Your task to perform on an android device: turn off javascript in the chrome app Image 0: 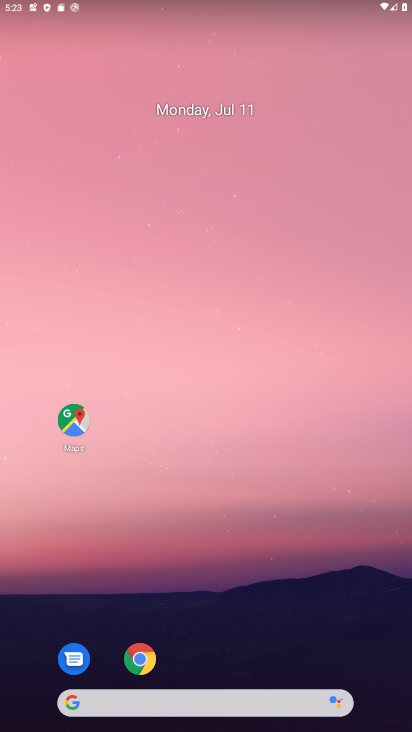
Step 0: click (136, 657)
Your task to perform on an android device: turn off javascript in the chrome app Image 1: 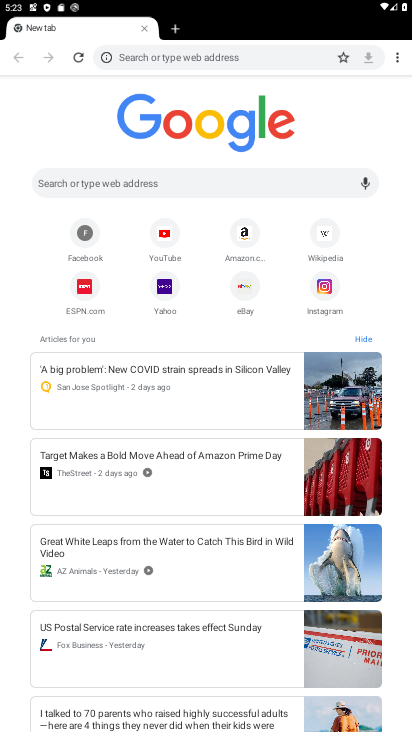
Step 1: click (398, 60)
Your task to perform on an android device: turn off javascript in the chrome app Image 2: 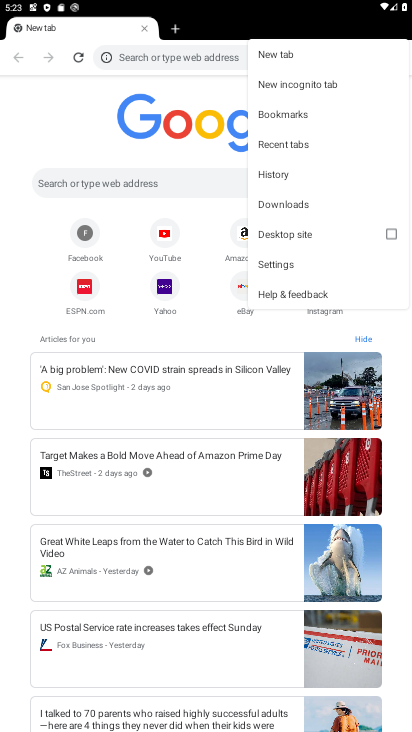
Step 2: click (274, 259)
Your task to perform on an android device: turn off javascript in the chrome app Image 3: 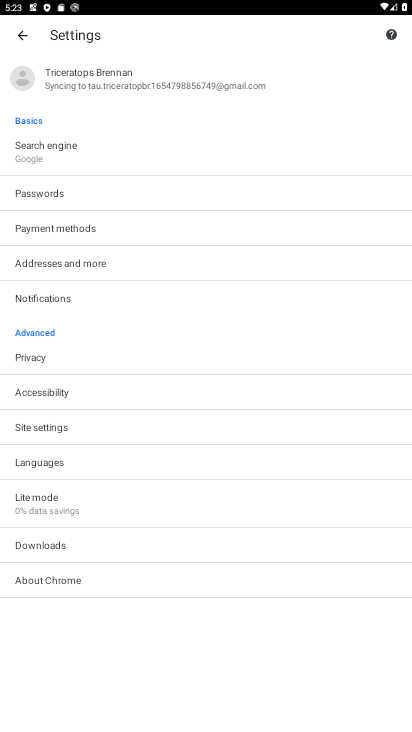
Step 3: click (38, 431)
Your task to perform on an android device: turn off javascript in the chrome app Image 4: 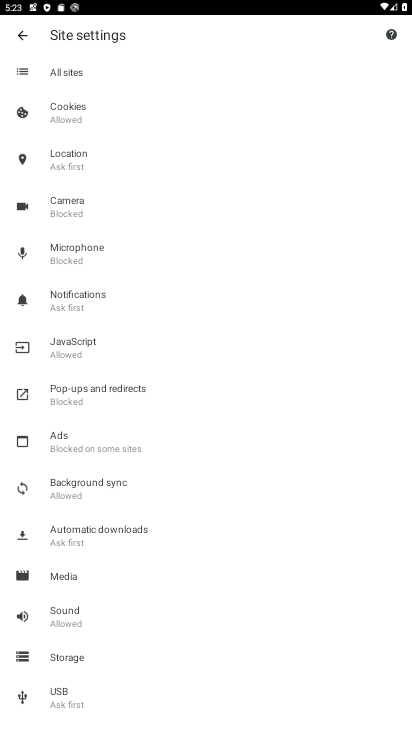
Step 4: click (63, 341)
Your task to perform on an android device: turn off javascript in the chrome app Image 5: 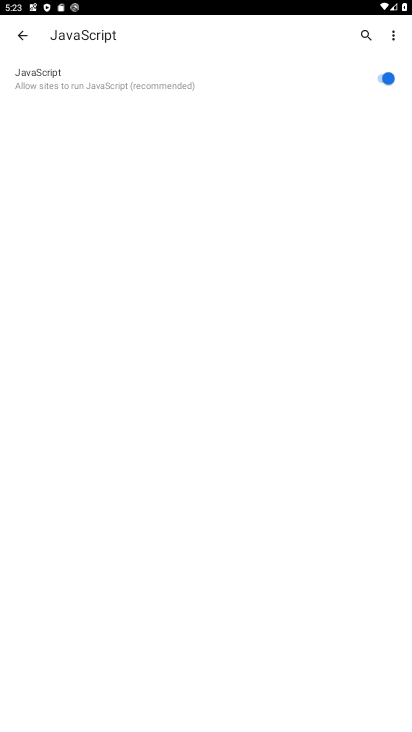
Step 5: click (379, 75)
Your task to perform on an android device: turn off javascript in the chrome app Image 6: 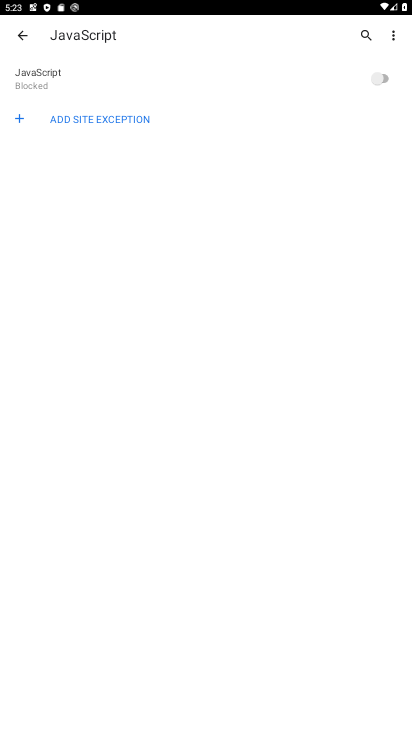
Step 6: task complete